Your task to perform on an android device: Open Youtube and go to the subscriptions tab Image 0: 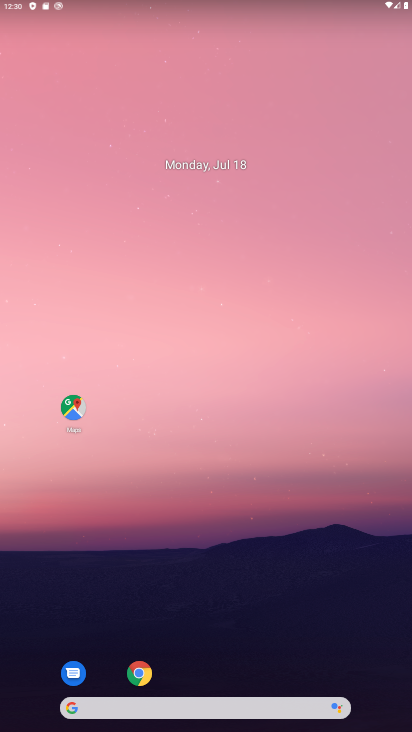
Step 0: drag from (150, 669) to (227, 70)
Your task to perform on an android device: Open Youtube and go to the subscriptions tab Image 1: 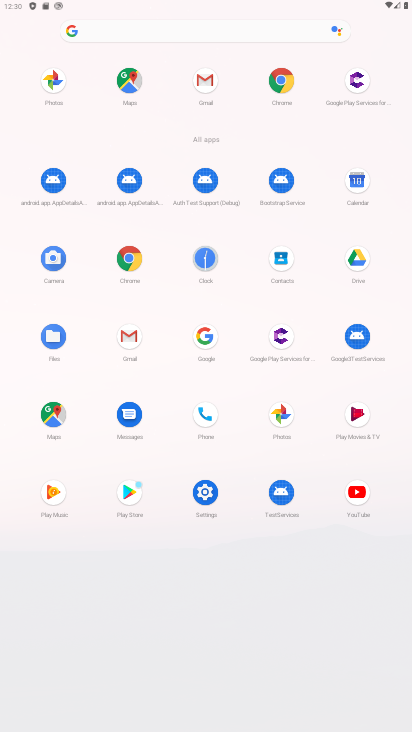
Step 1: click (360, 490)
Your task to perform on an android device: Open Youtube and go to the subscriptions tab Image 2: 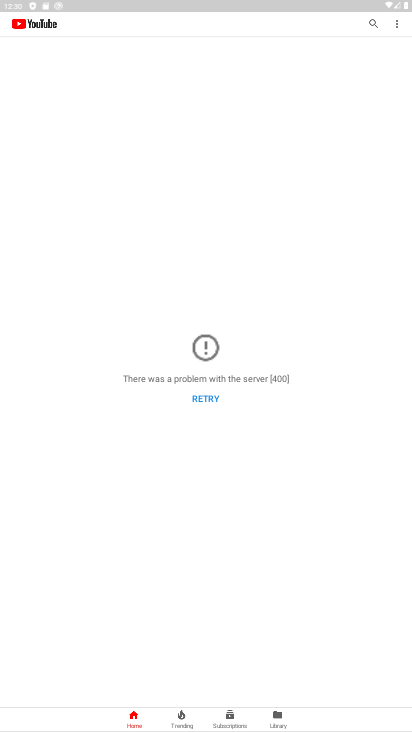
Step 2: click (225, 712)
Your task to perform on an android device: Open Youtube and go to the subscriptions tab Image 3: 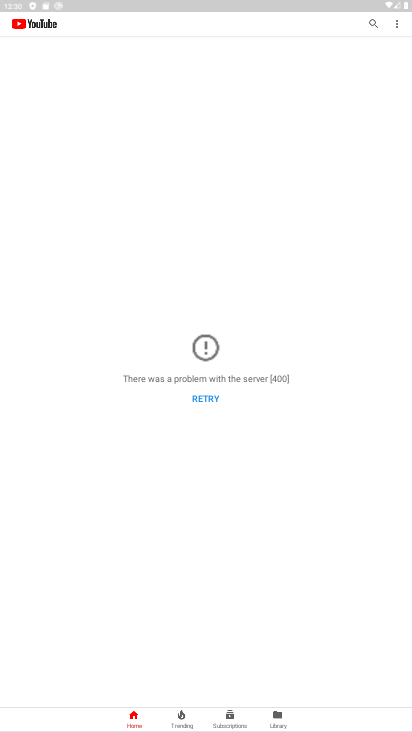
Step 3: click (225, 718)
Your task to perform on an android device: Open Youtube and go to the subscriptions tab Image 4: 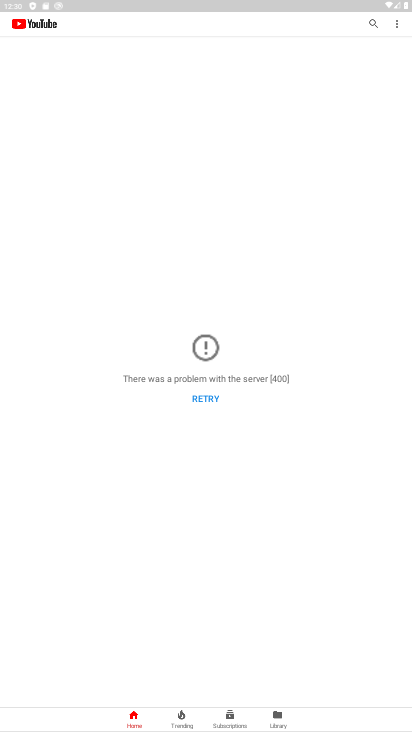
Step 4: click (227, 722)
Your task to perform on an android device: Open Youtube and go to the subscriptions tab Image 5: 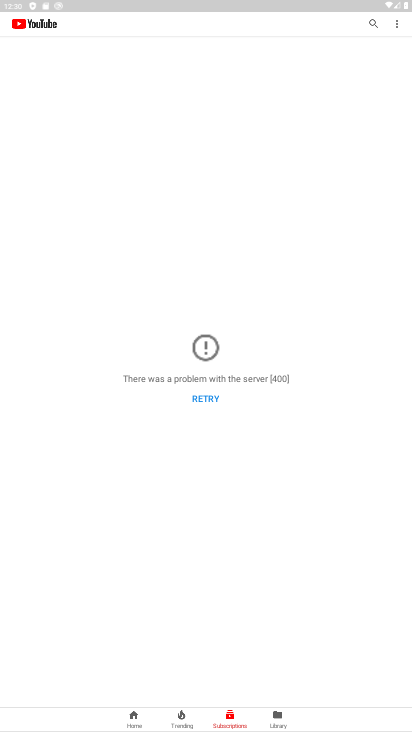
Step 5: task complete